Your task to perform on an android device: Do I have any events this weekend? Image 0: 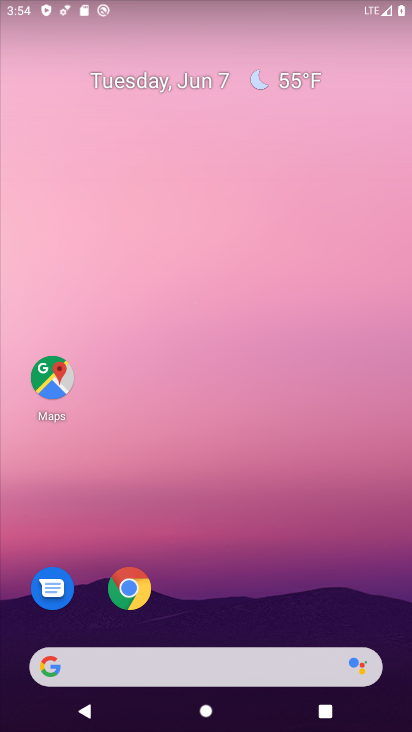
Step 0: drag from (215, 633) to (292, 154)
Your task to perform on an android device: Do I have any events this weekend? Image 1: 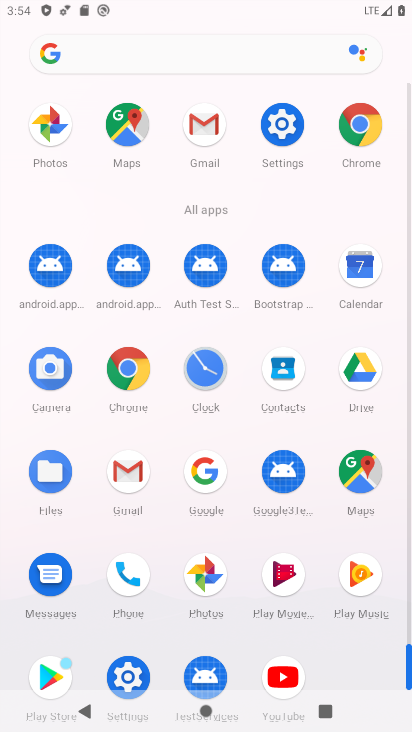
Step 1: click (372, 273)
Your task to perform on an android device: Do I have any events this weekend? Image 2: 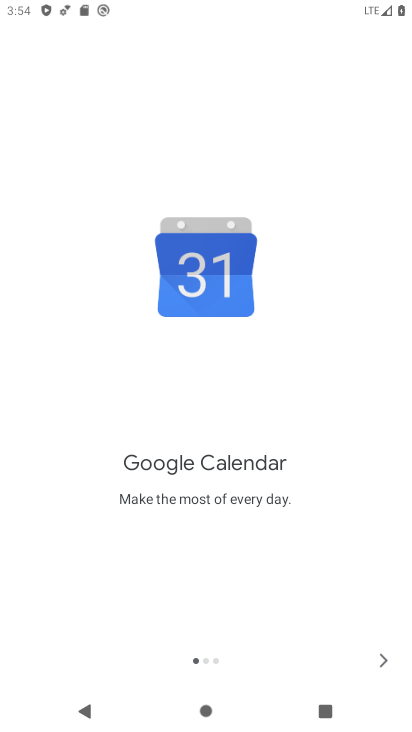
Step 2: click (384, 660)
Your task to perform on an android device: Do I have any events this weekend? Image 3: 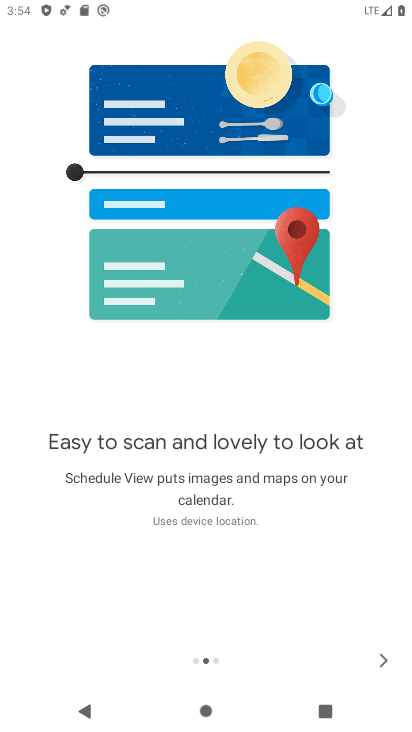
Step 3: click (385, 660)
Your task to perform on an android device: Do I have any events this weekend? Image 4: 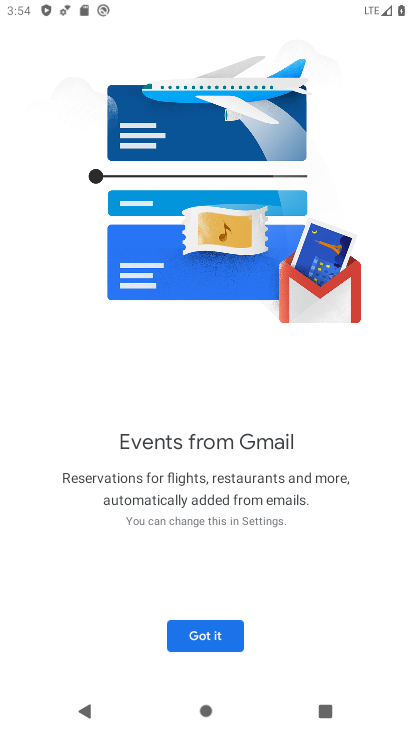
Step 4: click (212, 636)
Your task to perform on an android device: Do I have any events this weekend? Image 5: 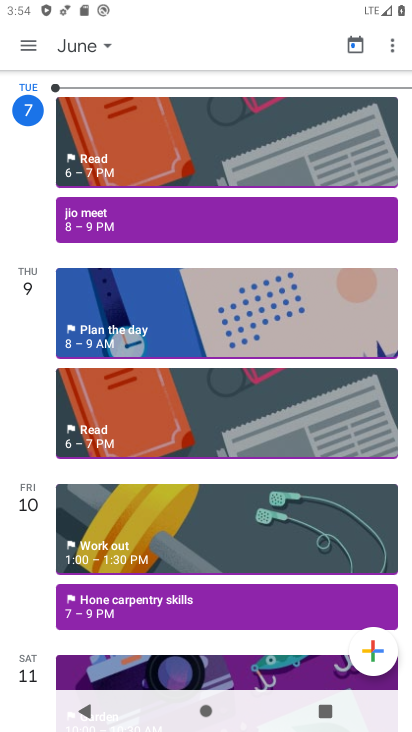
Step 5: click (36, 45)
Your task to perform on an android device: Do I have any events this weekend? Image 6: 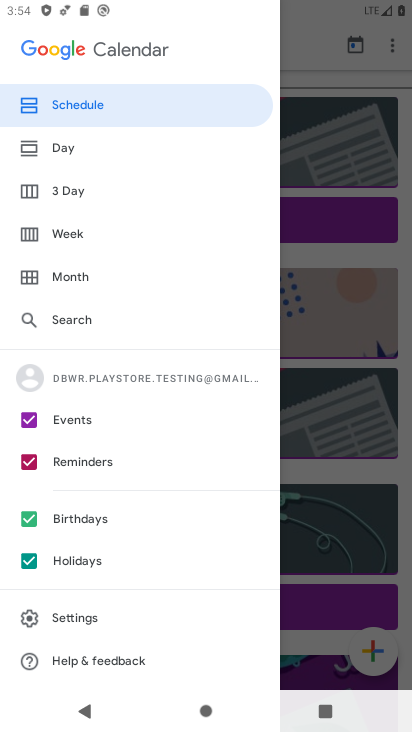
Step 6: click (94, 235)
Your task to perform on an android device: Do I have any events this weekend? Image 7: 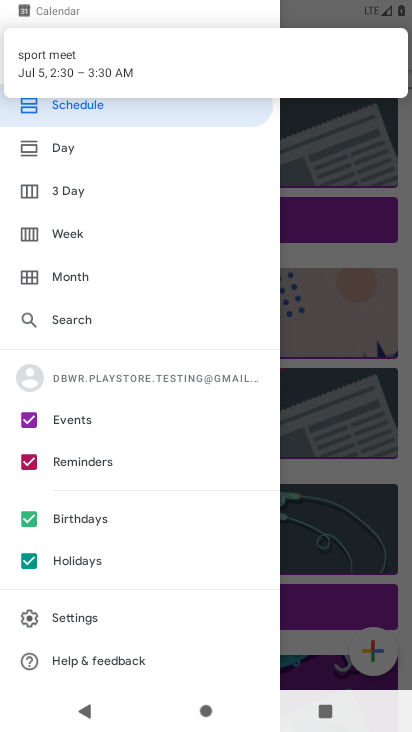
Step 7: click (85, 237)
Your task to perform on an android device: Do I have any events this weekend? Image 8: 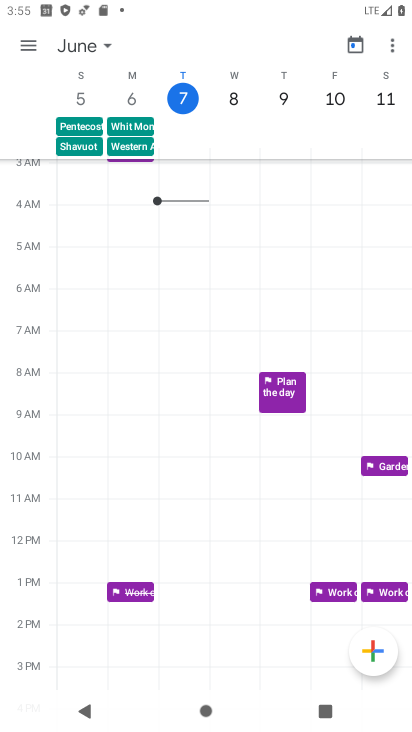
Step 8: task complete